Your task to perform on an android device: Open eBay Image 0: 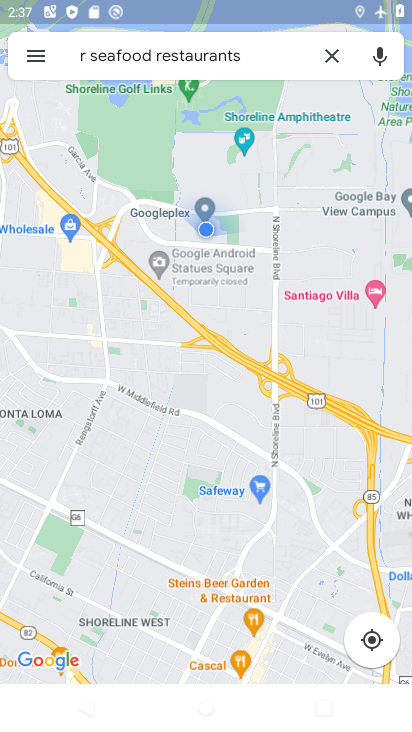
Step 0: press home button
Your task to perform on an android device: Open eBay Image 1: 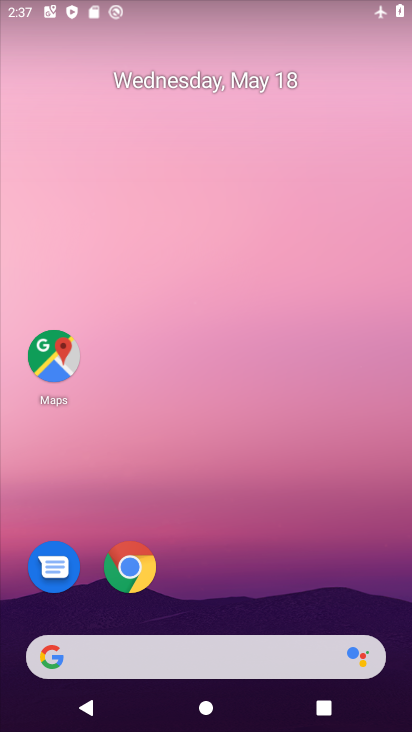
Step 1: drag from (205, 586) to (244, 323)
Your task to perform on an android device: Open eBay Image 2: 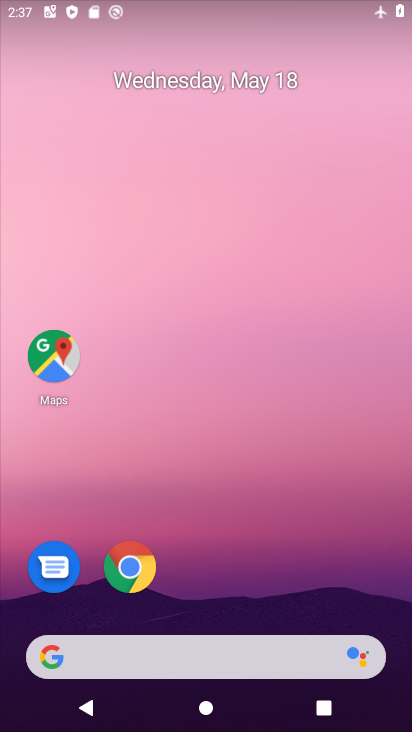
Step 2: click (127, 557)
Your task to perform on an android device: Open eBay Image 3: 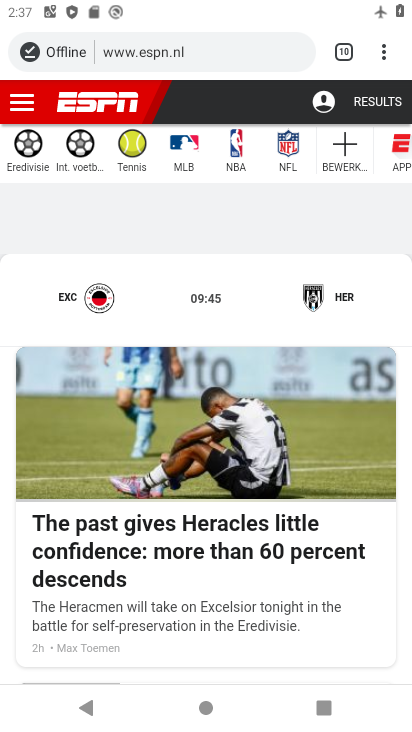
Step 3: click (388, 44)
Your task to perform on an android device: Open eBay Image 4: 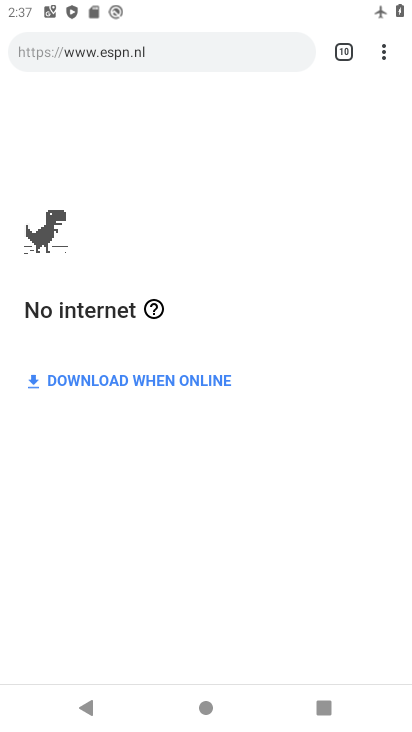
Step 4: click (373, 47)
Your task to perform on an android device: Open eBay Image 5: 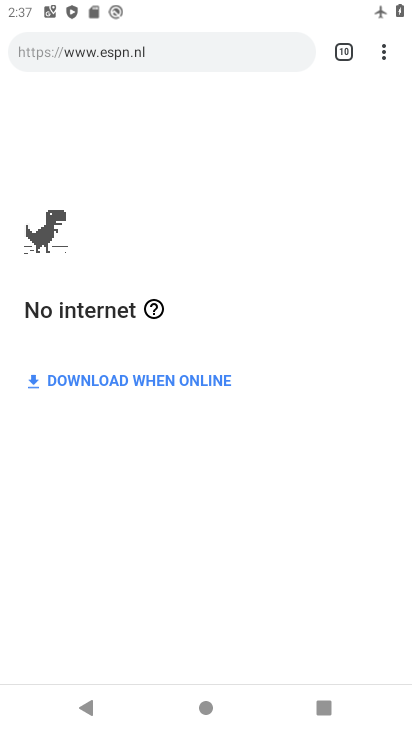
Step 5: click (382, 47)
Your task to perform on an android device: Open eBay Image 6: 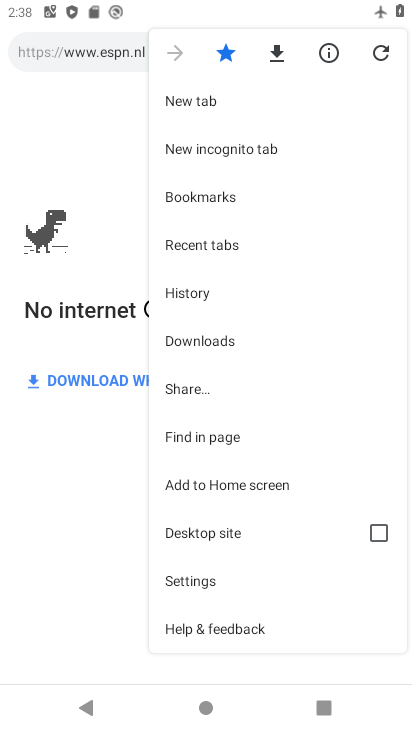
Step 6: click (195, 89)
Your task to perform on an android device: Open eBay Image 7: 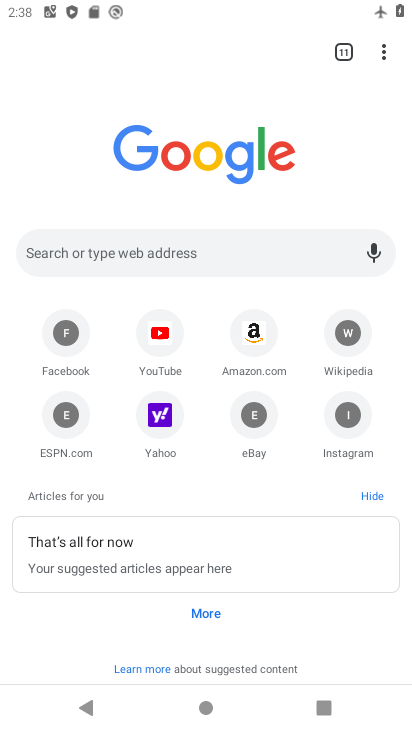
Step 7: click (250, 429)
Your task to perform on an android device: Open eBay Image 8: 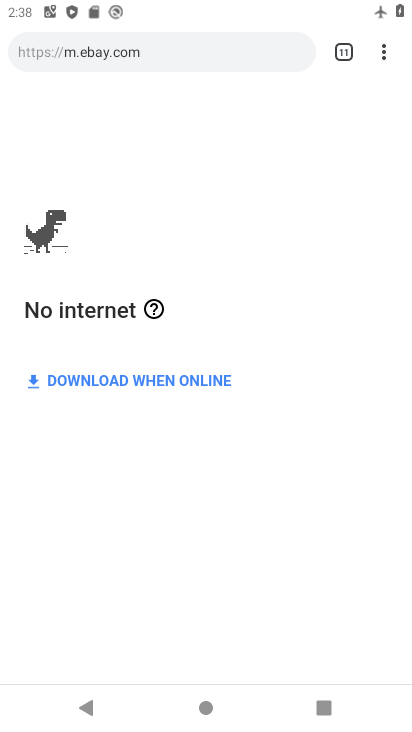
Step 8: task complete